Your task to perform on an android device: Is it going to rain this weekend? Image 0: 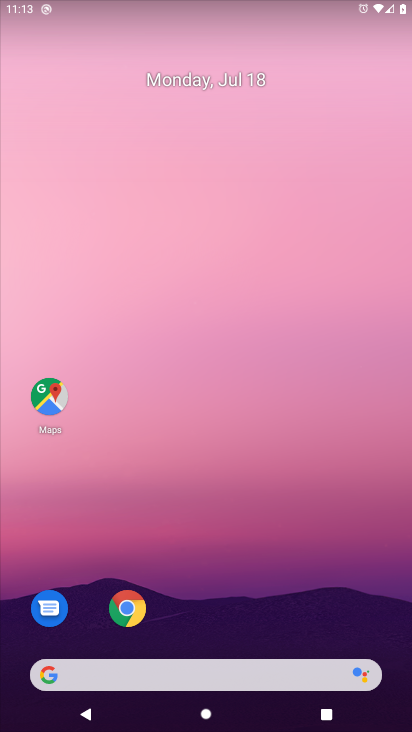
Step 0: click (81, 673)
Your task to perform on an android device: Is it going to rain this weekend? Image 1: 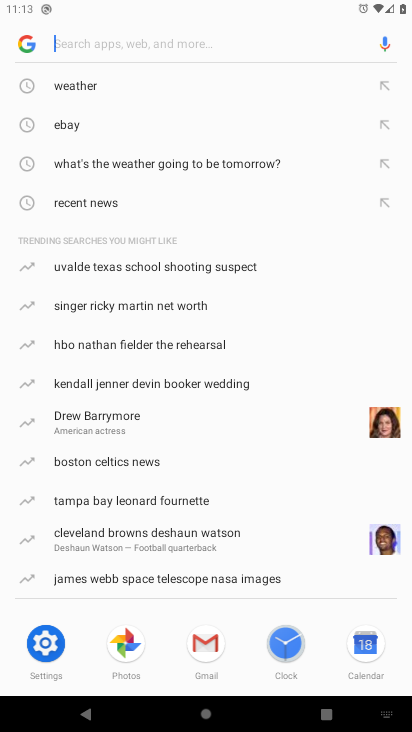
Step 1: type "Is it going to rain this weekend?"
Your task to perform on an android device: Is it going to rain this weekend? Image 2: 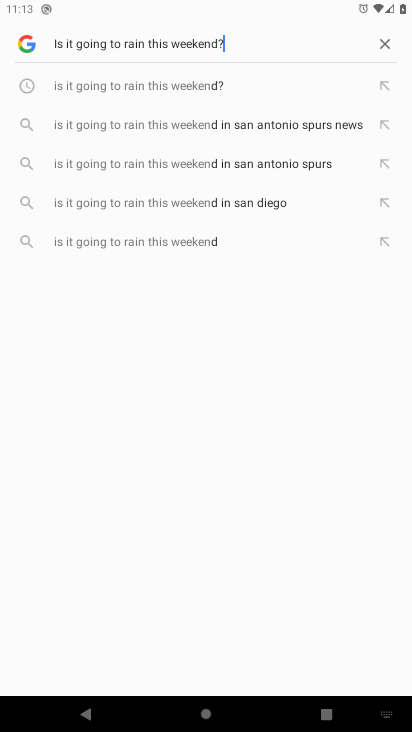
Step 2: type ""
Your task to perform on an android device: Is it going to rain this weekend? Image 3: 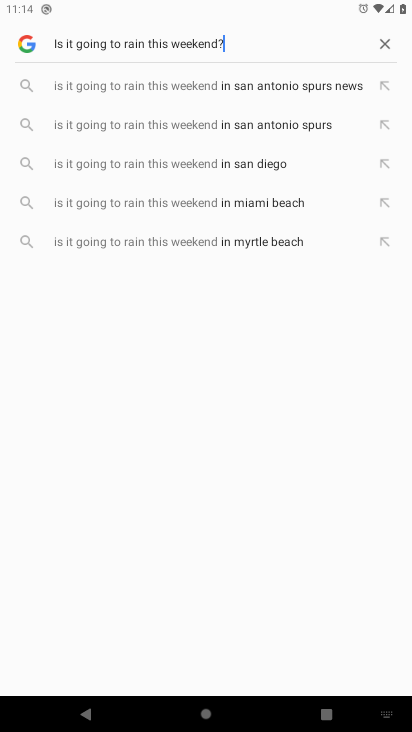
Step 3: task complete